Your task to perform on an android device: Open Wikipedia Image 0: 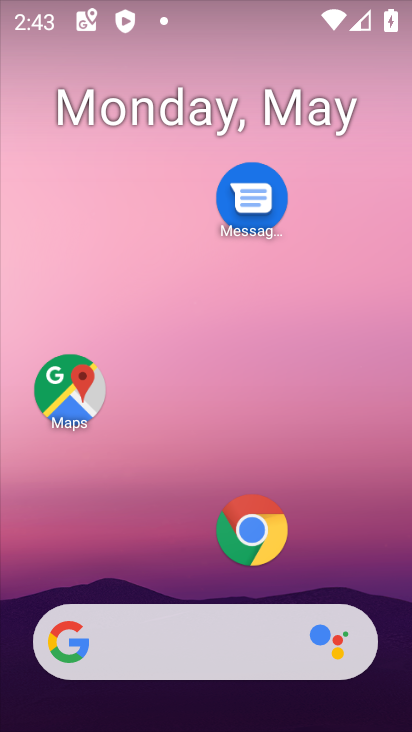
Step 0: click (262, 523)
Your task to perform on an android device: Open Wikipedia Image 1: 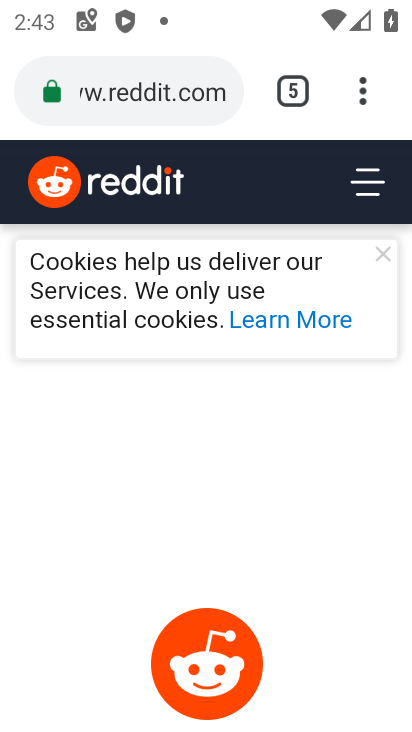
Step 1: click (297, 97)
Your task to perform on an android device: Open Wikipedia Image 2: 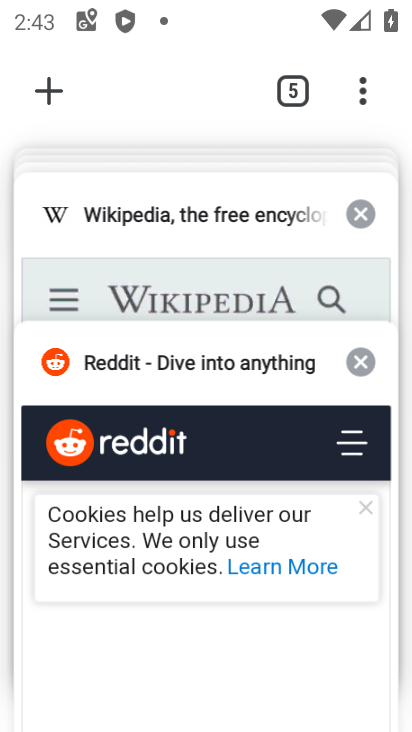
Step 2: click (153, 227)
Your task to perform on an android device: Open Wikipedia Image 3: 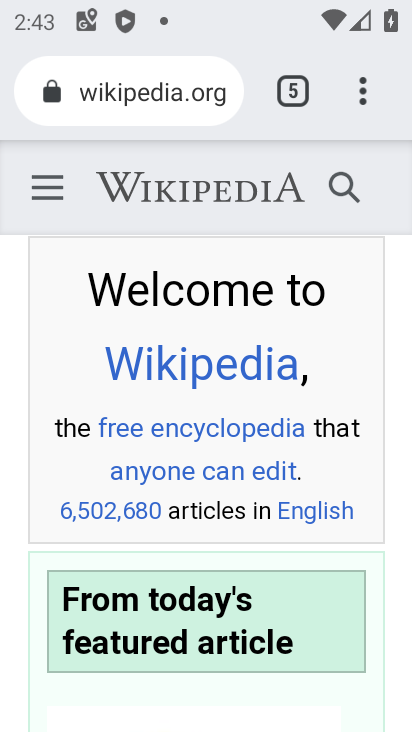
Step 3: task complete